Your task to perform on an android device: Show me recent news Image 0: 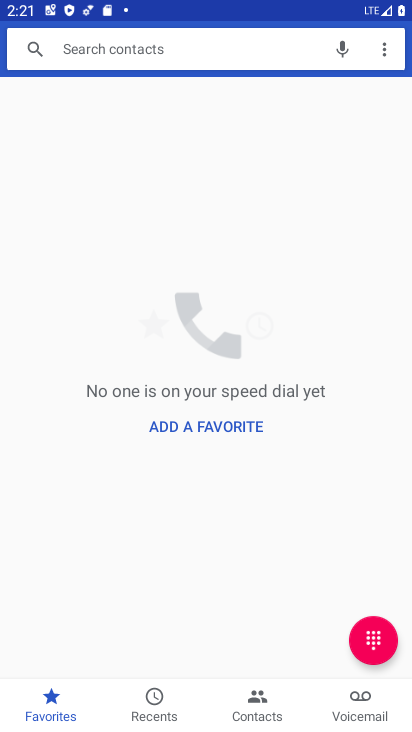
Step 0: press home button
Your task to perform on an android device: Show me recent news Image 1: 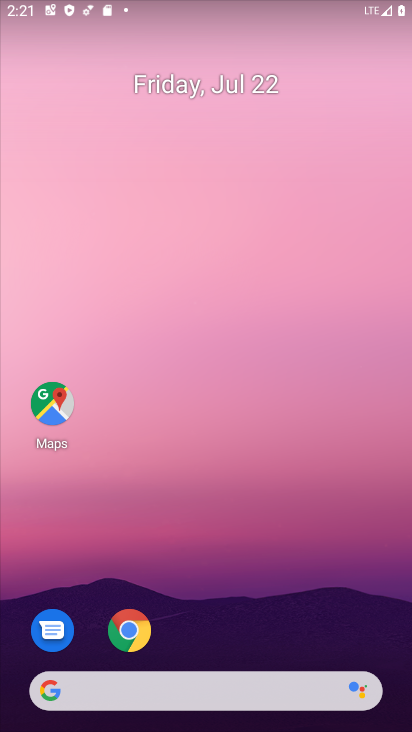
Step 1: drag from (223, 645) to (166, 31)
Your task to perform on an android device: Show me recent news Image 2: 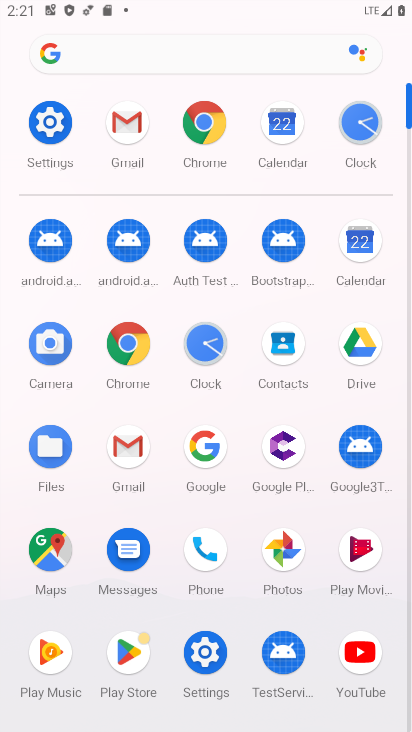
Step 2: click (199, 439)
Your task to perform on an android device: Show me recent news Image 3: 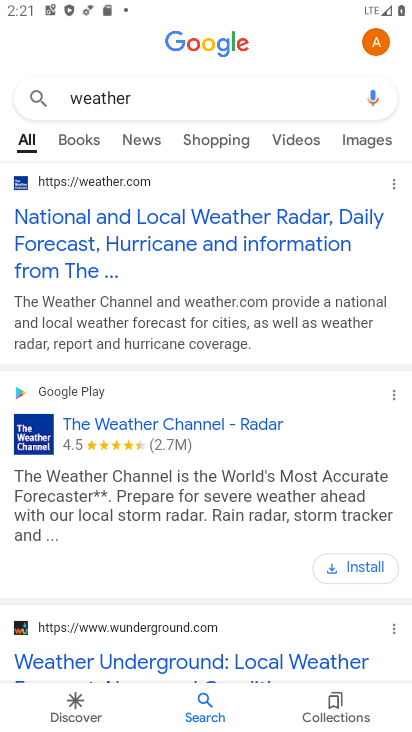
Step 3: click (156, 100)
Your task to perform on an android device: Show me recent news Image 4: 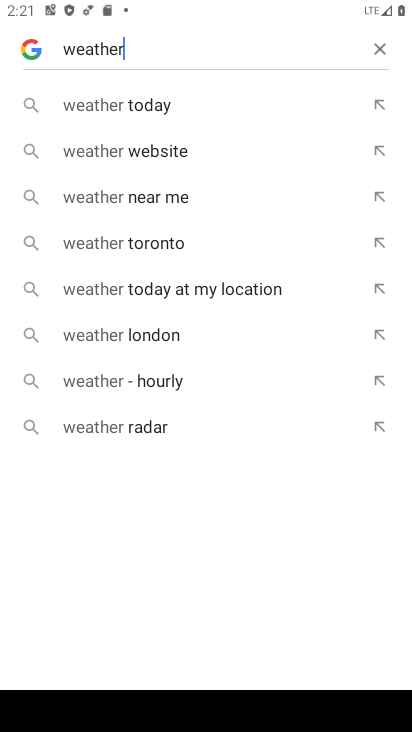
Step 4: click (381, 45)
Your task to perform on an android device: Show me recent news Image 5: 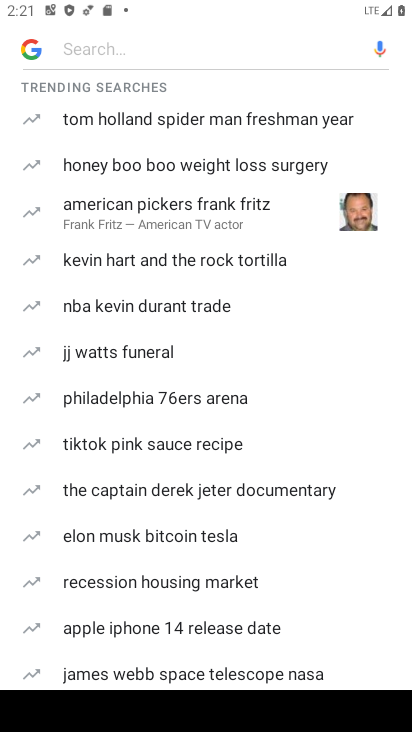
Step 5: type "recent news"
Your task to perform on an android device: Show me recent news Image 6: 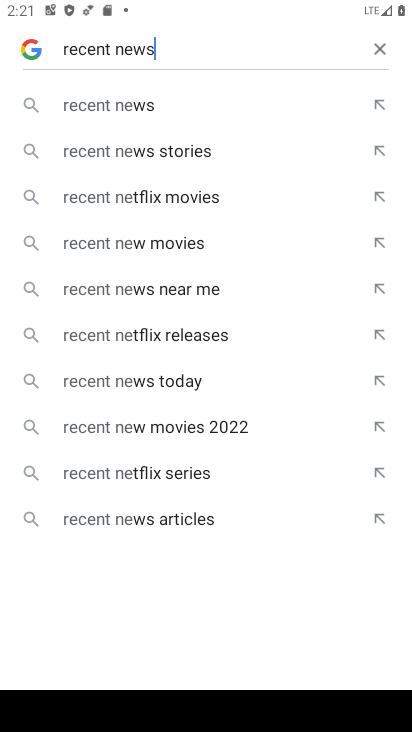
Step 6: type ""
Your task to perform on an android device: Show me recent news Image 7: 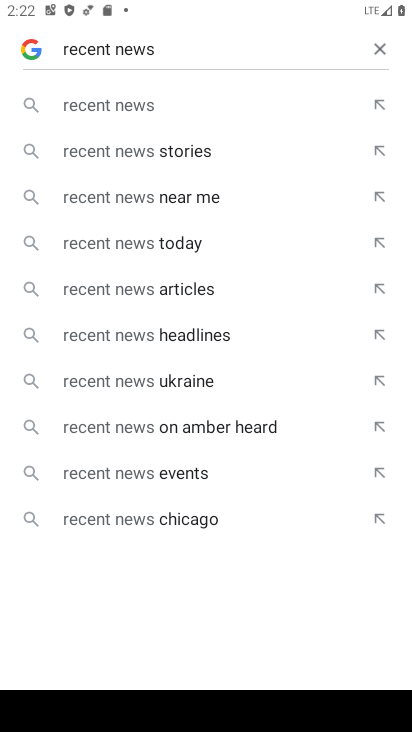
Step 7: click (79, 98)
Your task to perform on an android device: Show me recent news Image 8: 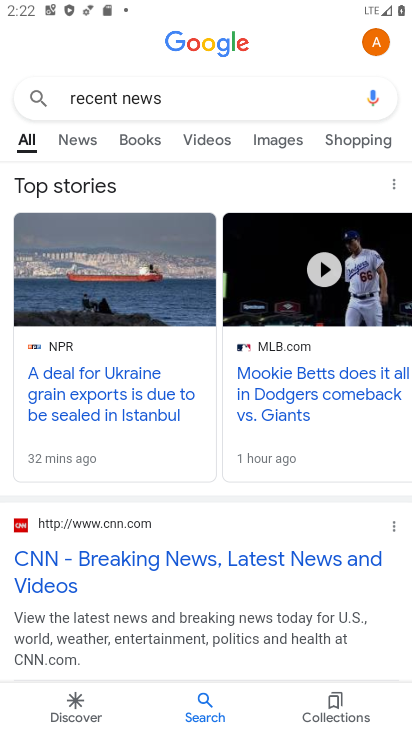
Step 8: task complete